Your task to perform on an android device: open app "Spotify" (install if not already installed), go to login, and select forgot password Image 0: 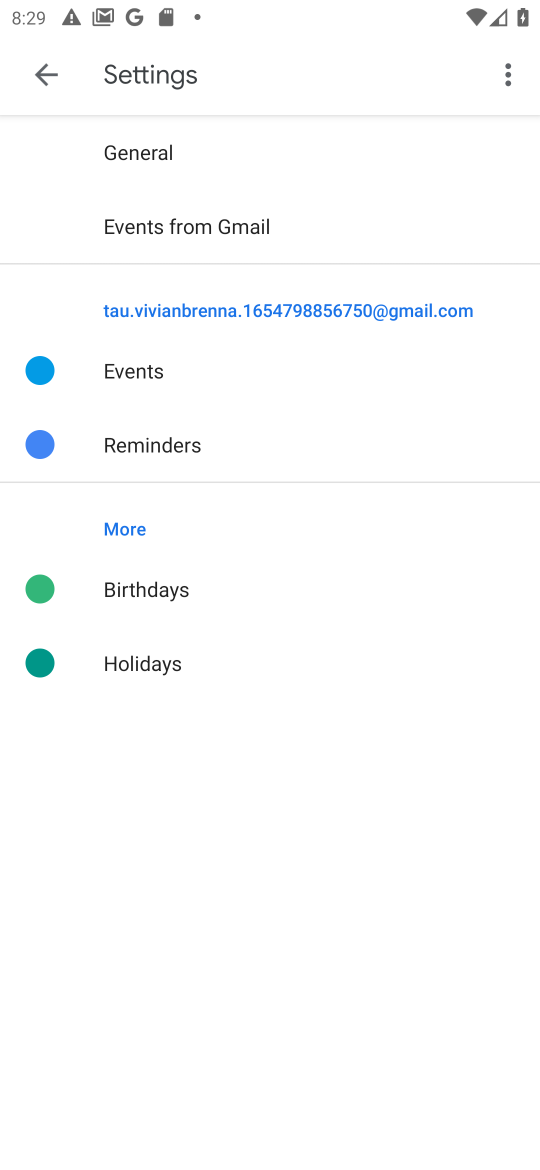
Step 0: press home button
Your task to perform on an android device: open app "Spotify" (install if not already installed), go to login, and select forgot password Image 1: 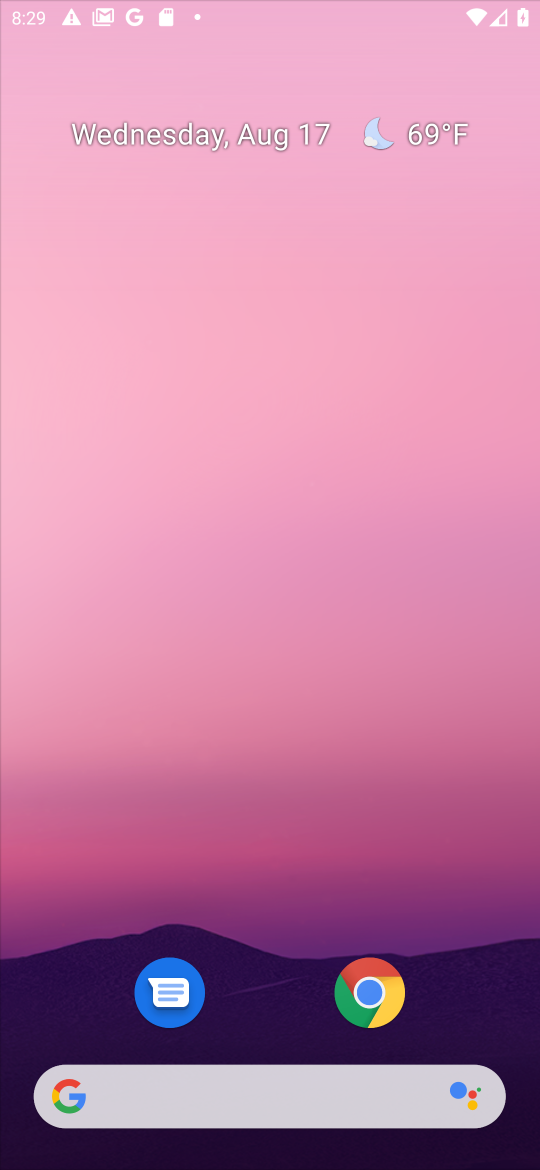
Step 1: drag from (518, 1057) to (235, 48)
Your task to perform on an android device: open app "Spotify" (install if not already installed), go to login, and select forgot password Image 2: 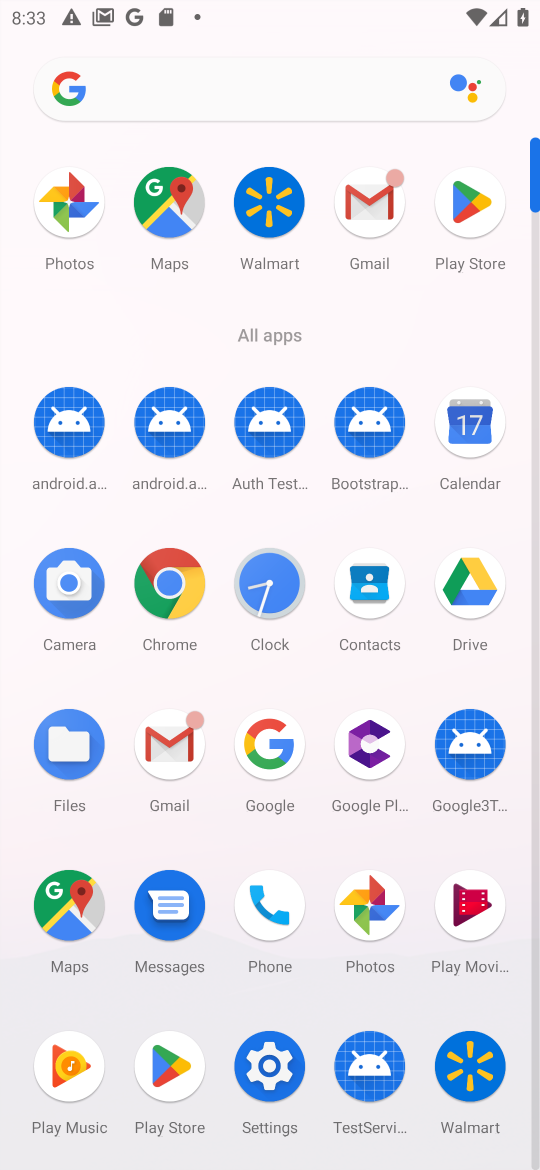
Step 2: click (170, 1078)
Your task to perform on an android device: open app "Spotify" (install if not already installed), go to login, and select forgot password Image 3: 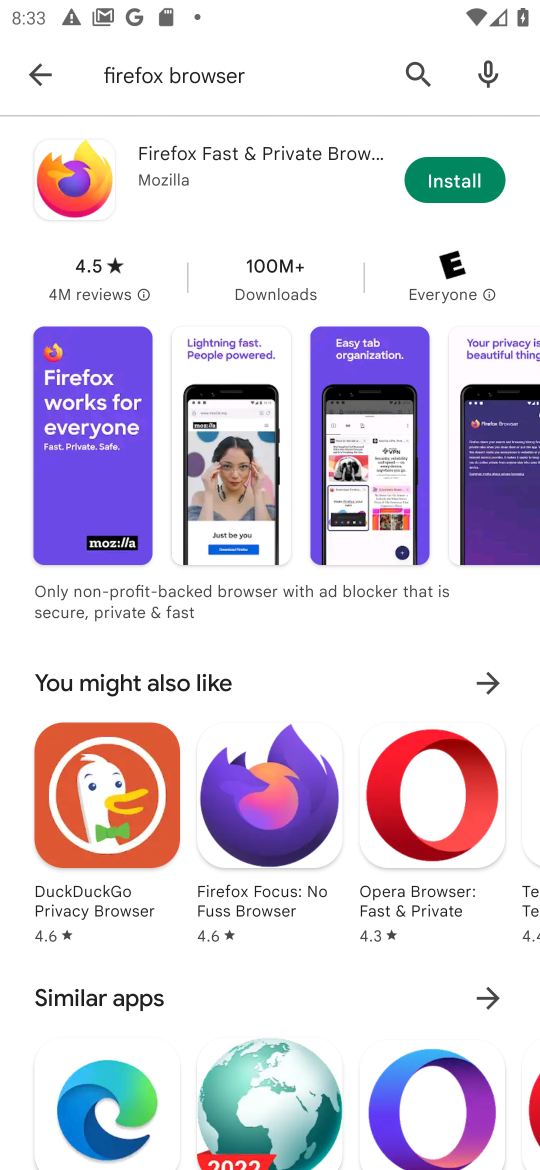
Step 3: press back button
Your task to perform on an android device: open app "Spotify" (install if not already installed), go to login, and select forgot password Image 4: 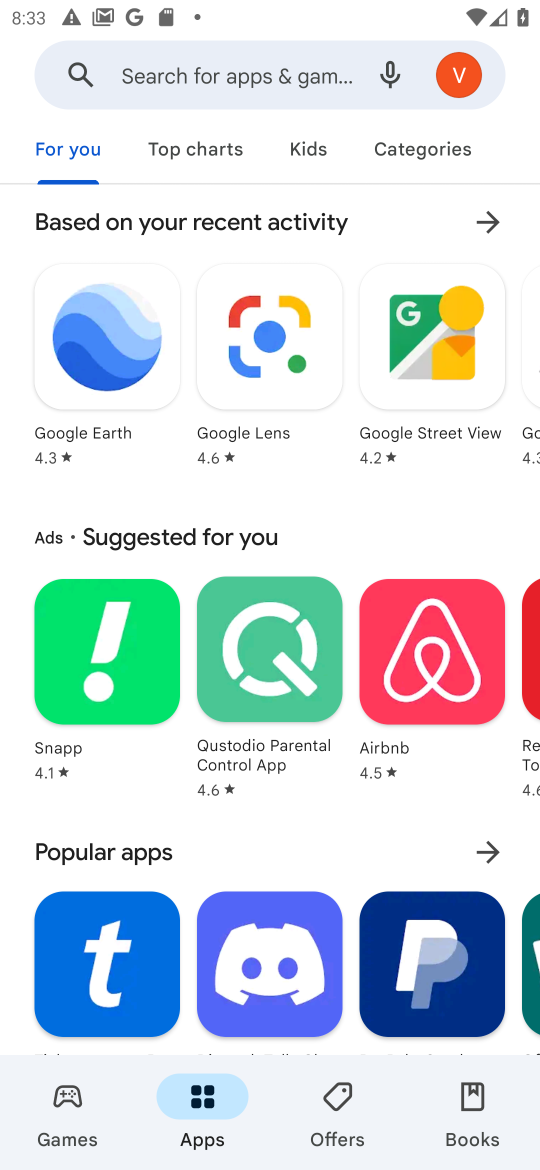
Step 4: click (189, 77)
Your task to perform on an android device: open app "Spotify" (install if not already installed), go to login, and select forgot password Image 5: 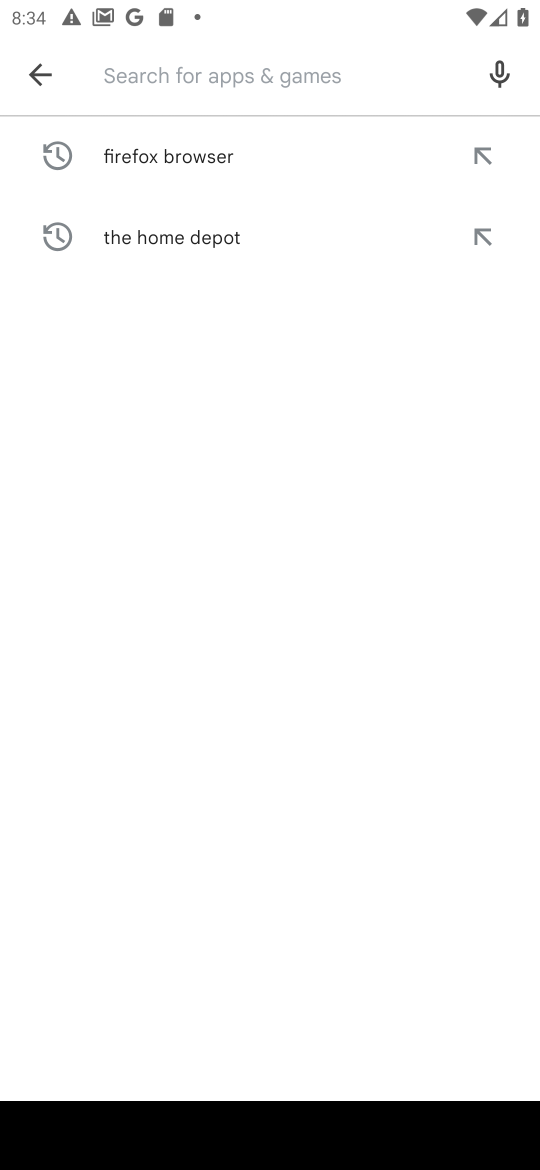
Step 5: type "Spotify"
Your task to perform on an android device: open app "Spotify" (install if not already installed), go to login, and select forgot password Image 6: 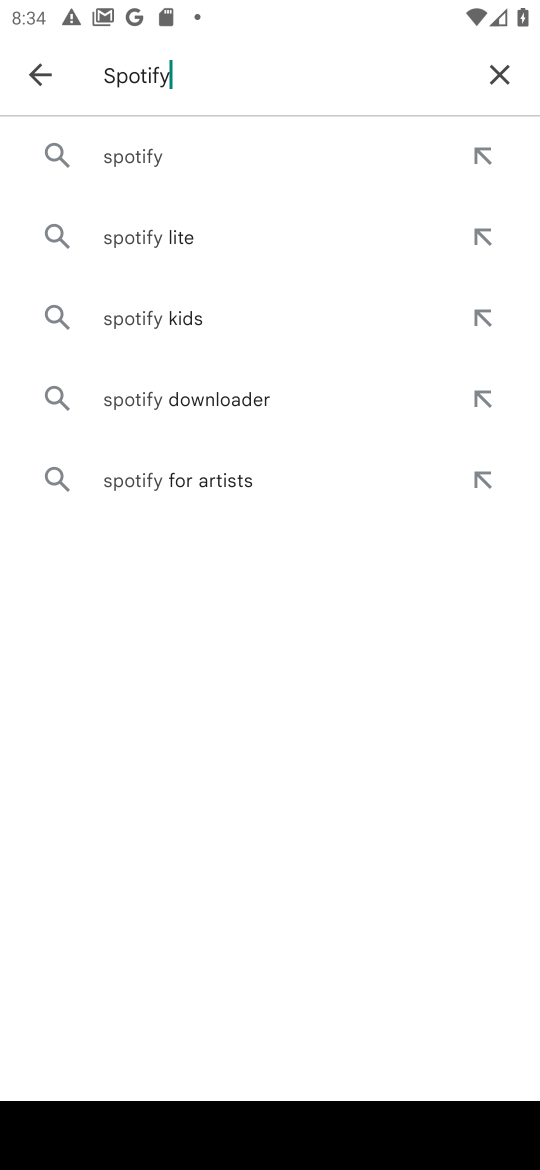
Step 6: click (167, 145)
Your task to perform on an android device: open app "Spotify" (install if not already installed), go to login, and select forgot password Image 7: 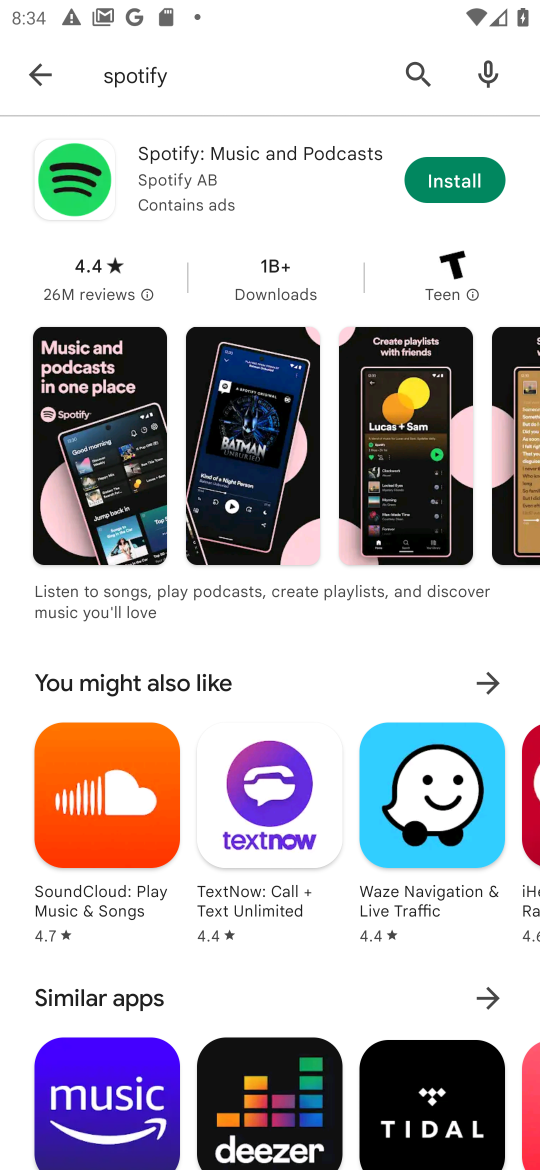
Step 7: task complete